Your task to perform on an android device: What's the weather today? Image 0: 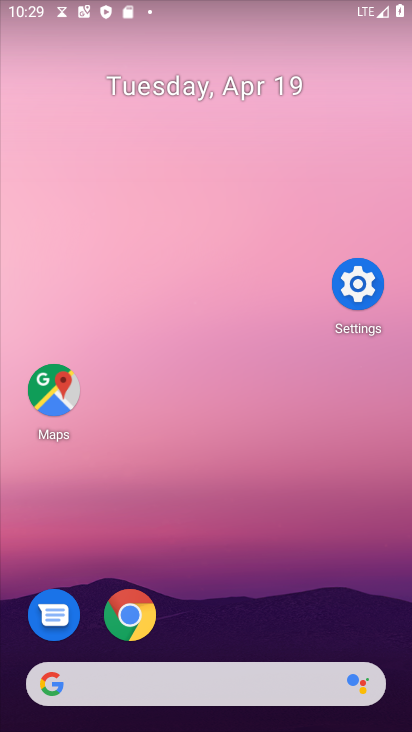
Step 0: click (228, 132)
Your task to perform on an android device: What's the weather today? Image 1: 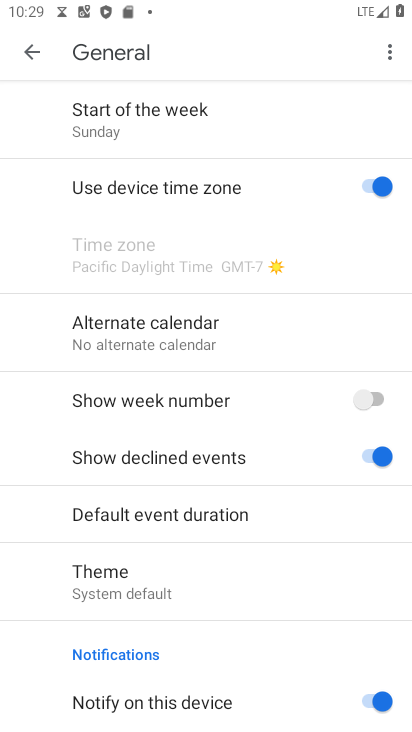
Step 1: click (38, 47)
Your task to perform on an android device: What's the weather today? Image 2: 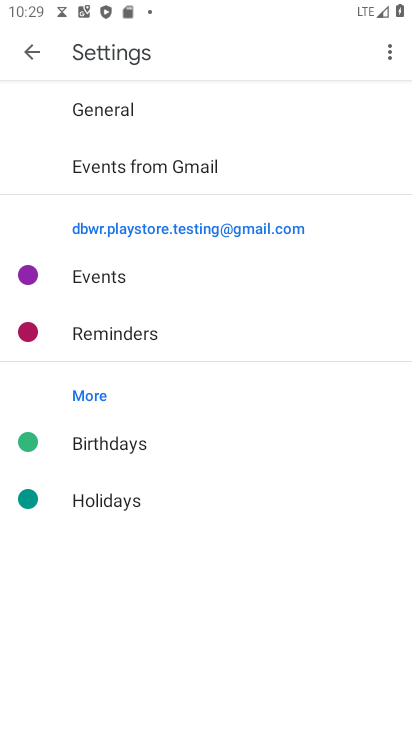
Step 2: click (28, 53)
Your task to perform on an android device: What's the weather today? Image 3: 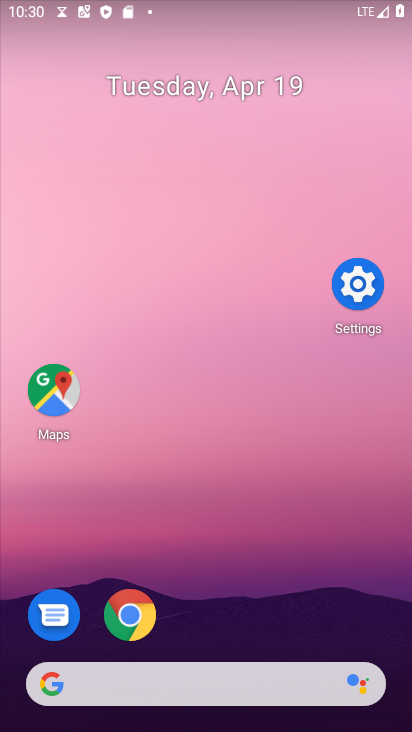
Step 3: drag from (194, 550) to (179, 156)
Your task to perform on an android device: What's the weather today? Image 4: 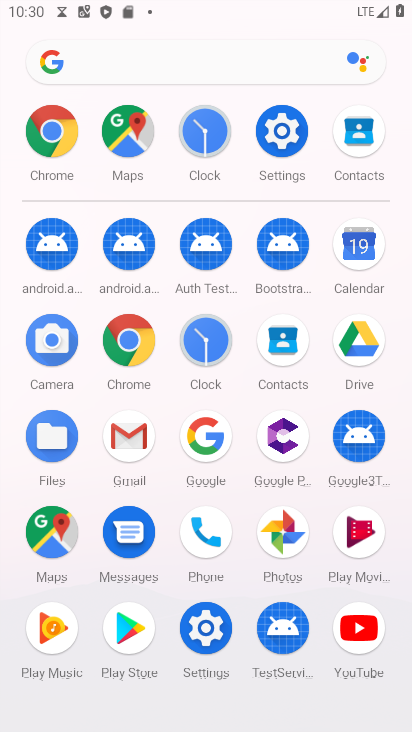
Step 4: drag from (169, 513) to (161, 156)
Your task to perform on an android device: What's the weather today? Image 5: 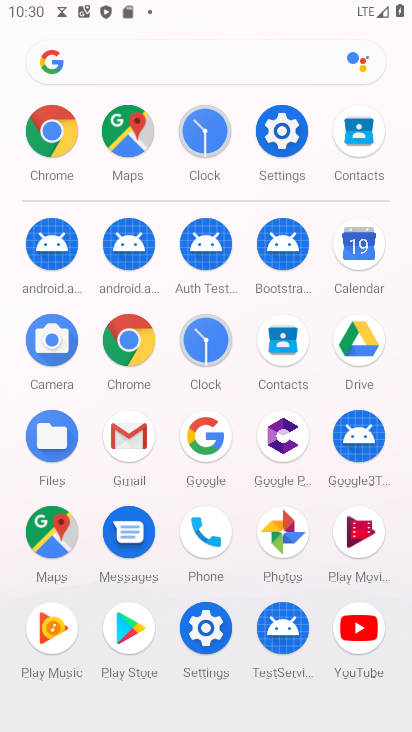
Step 5: click (123, 337)
Your task to perform on an android device: What's the weather today? Image 6: 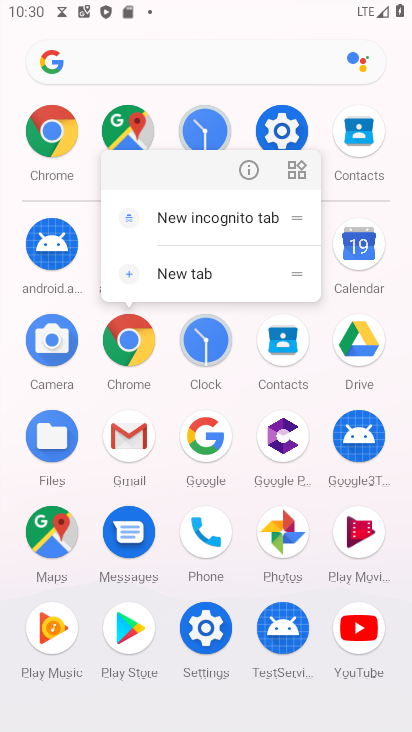
Step 6: click (249, 180)
Your task to perform on an android device: What's the weather today? Image 7: 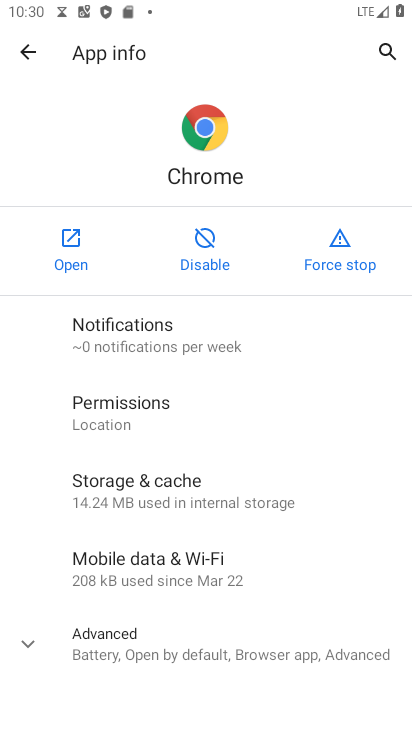
Step 7: click (65, 237)
Your task to perform on an android device: What's the weather today? Image 8: 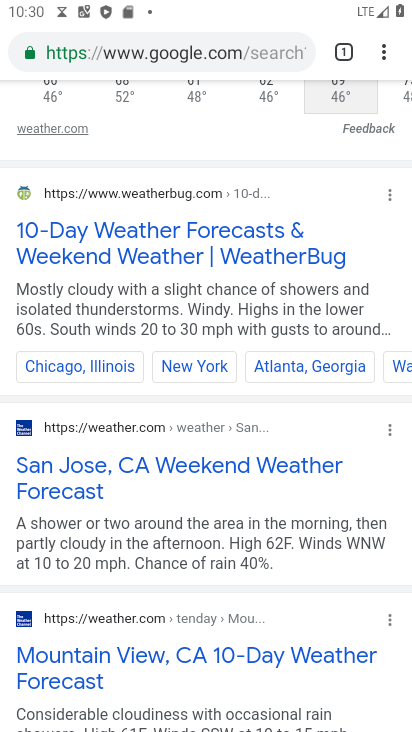
Step 8: drag from (233, 191) to (320, 727)
Your task to perform on an android device: What's the weather today? Image 9: 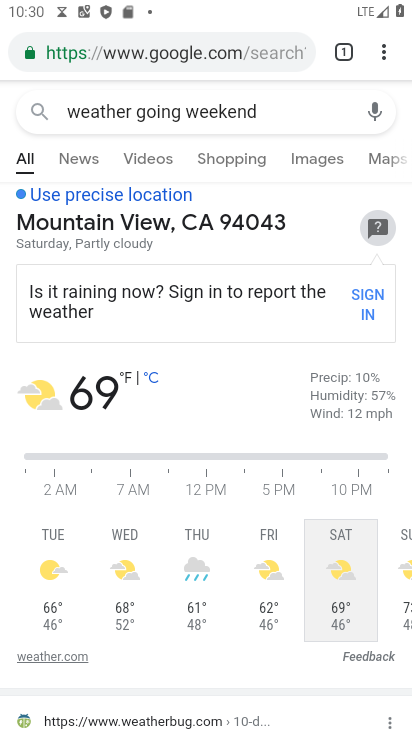
Step 9: click (202, 111)
Your task to perform on an android device: What's the weather today? Image 10: 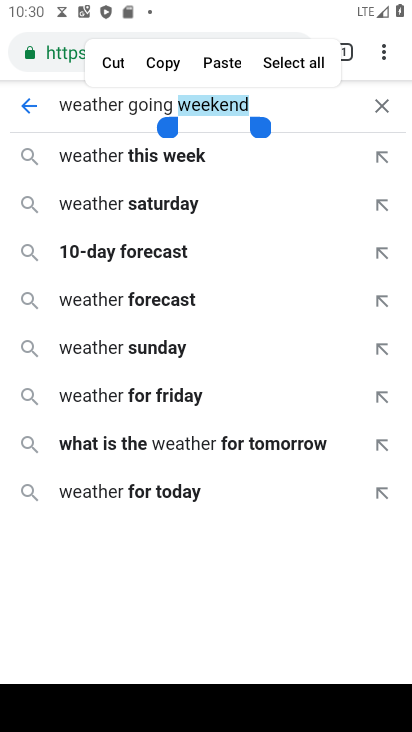
Step 10: click (382, 104)
Your task to perform on an android device: What's the weather today? Image 11: 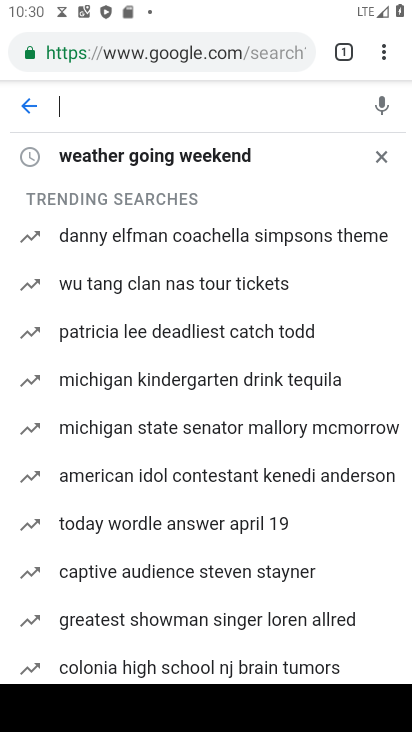
Step 11: click (213, 111)
Your task to perform on an android device: What's the weather today? Image 12: 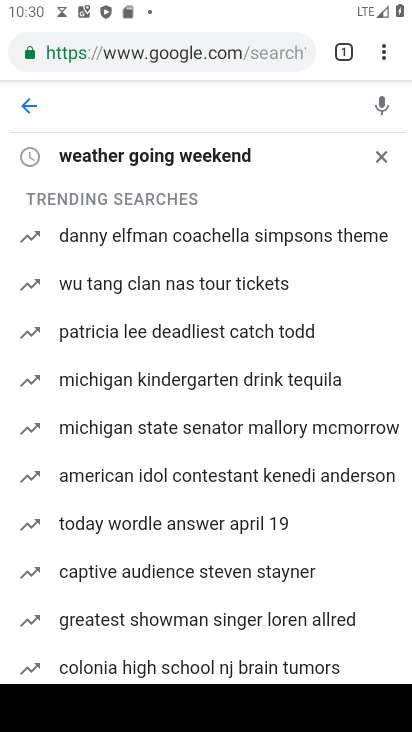
Step 12: type "weather today"
Your task to perform on an android device: What's the weather today? Image 13: 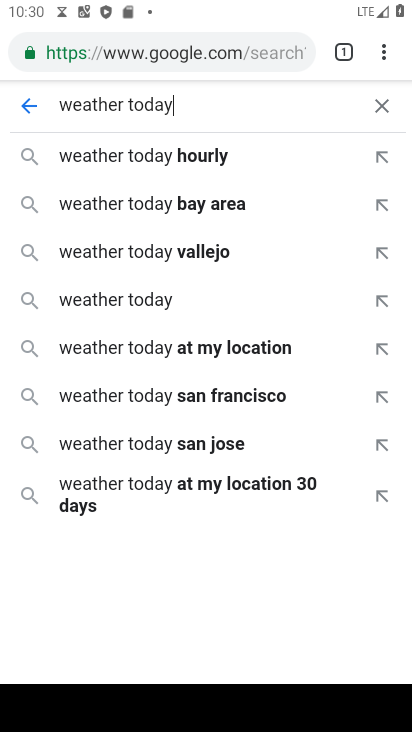
Step 13: click (162, 304)
Your task to perform on an android device: What's the weather today? Image 14: 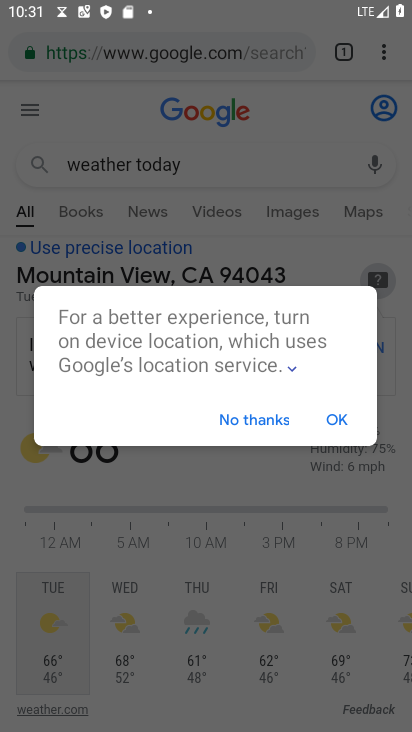
Step 14: click (328, 421)
Your task to perform on an android device: What's the weather today? Image 15: 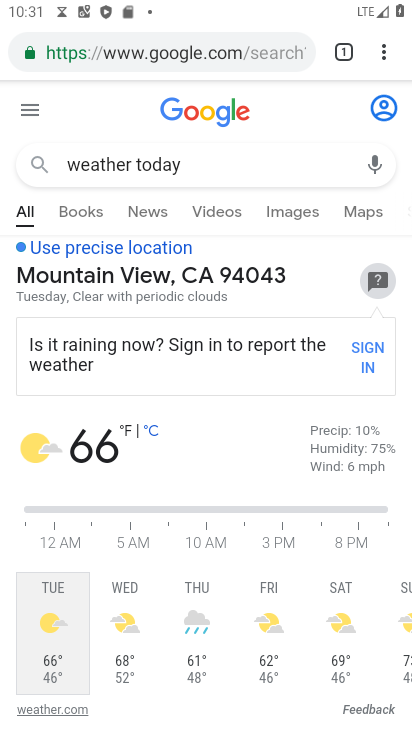
Step 15: task complete